Your task to perform on an android device: Open Youtube and go to "Your channel" Image 0: 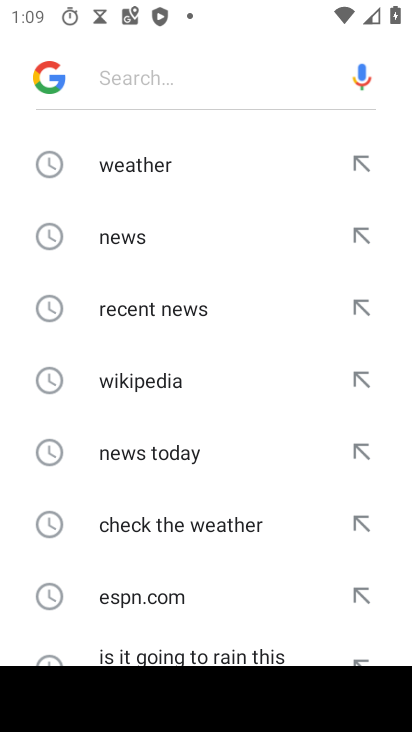
Step 0: press home button
Your task to perform on an android device: Open Youtube and go to "Your channel" Image 1: 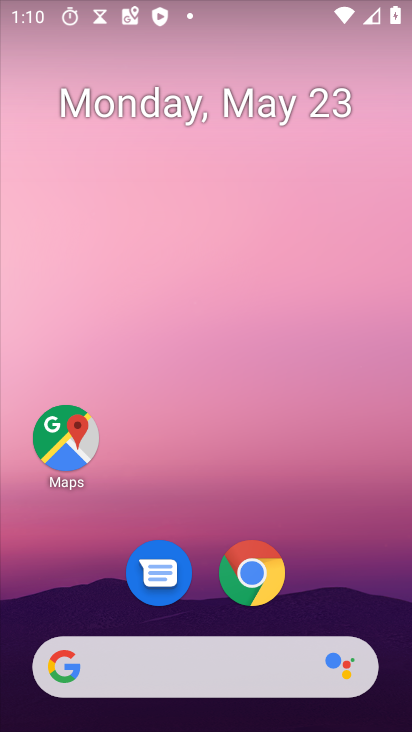
Step 1: drag from (213, 659) to (355, 88)
Your task to perform on an android device: Open Youtube and go to "Your channel" Image 2: 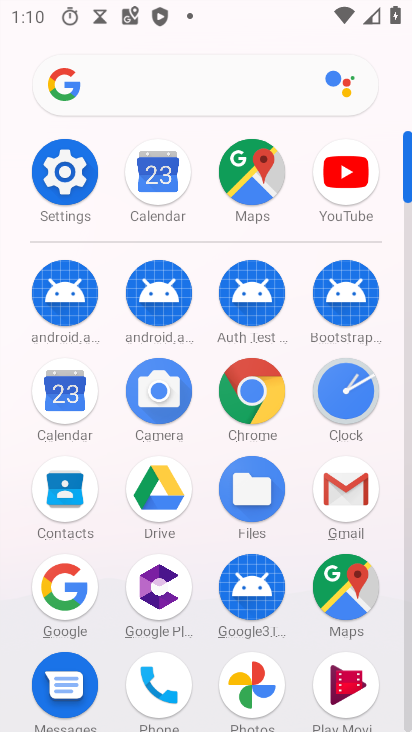
Step 2: click (337, 176)
Your task to perform on an android device: Open Youtube and go to "Your channel" Image 3: 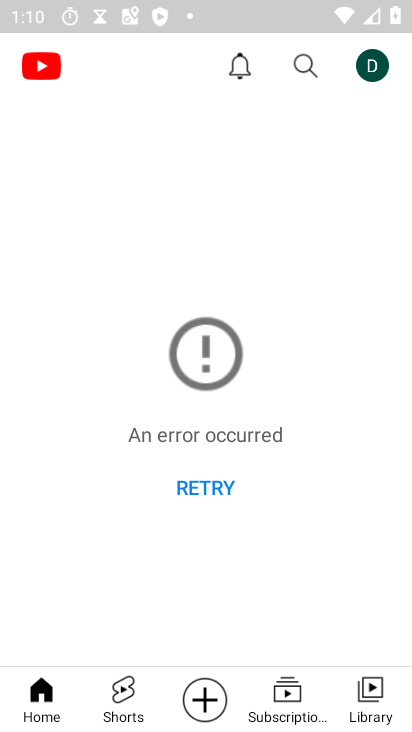
Step 3: click (204, 483)
Your task to perform on an android device: Open Youtube and go to "Your channel" Image 4: 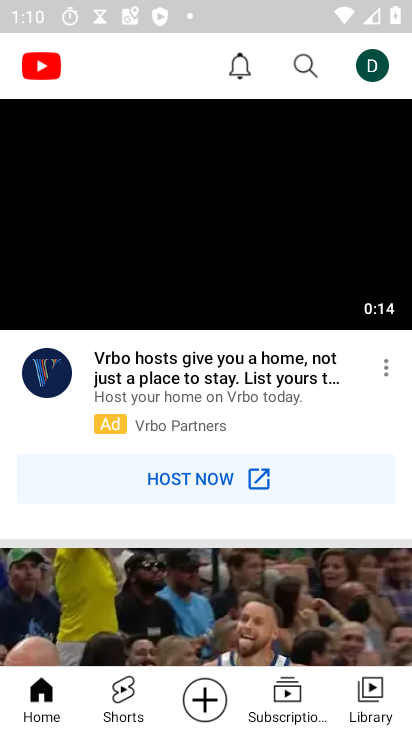
Step 4: click (375, 68)
Your task to perform on an android device: Open Youtube and go to "Your channel" Image 5: 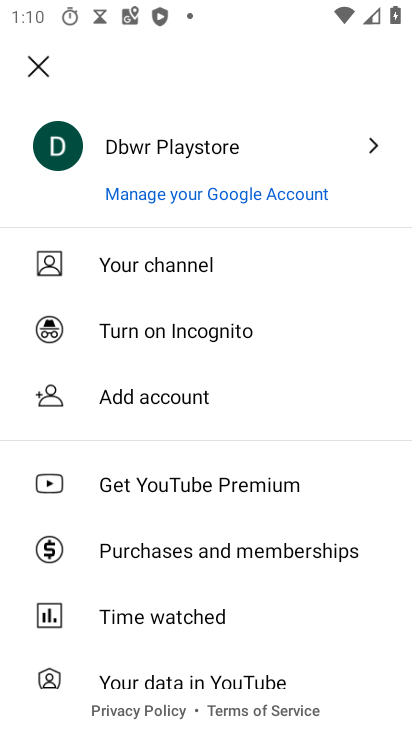
Step 5: click (162, 262)
Your task to perform on an android device: Open Youtube and go to "Your channel" Image 6: 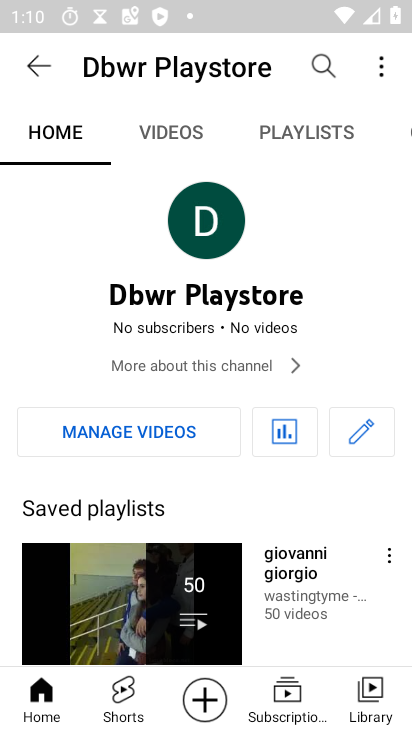
Step 6: task complete